Your task to perform on an android device: turn off notifications in google photos Image 0: 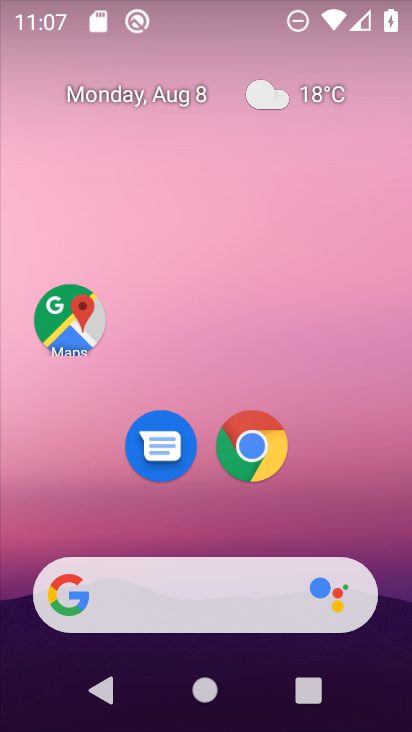
Step 0: drag from (391, 618) to (369, 180)
Your task to perform on an android device: turn off notifications in google photos Image 1: 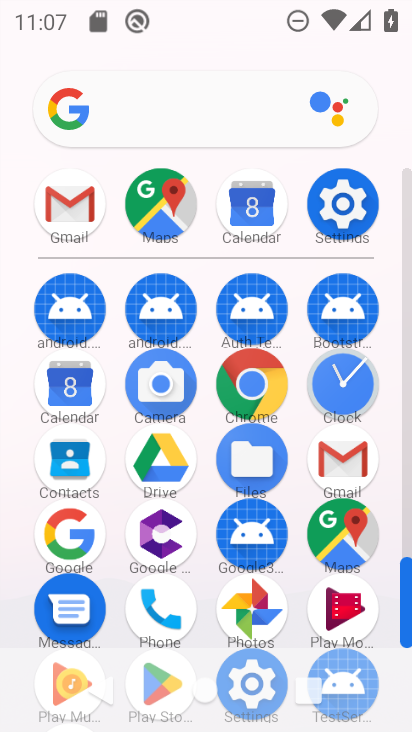
Step 1: drag from (404, 540) to (405, 497)
Your task to perform on an android device: turn off notifications in google photos Image 2: 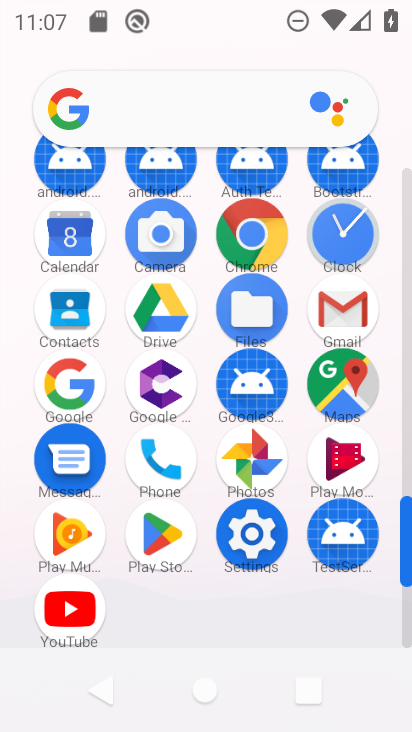
Step 2: click (250, 458)
Your task to perform on an android device: turn off notifications in google photos Image 3: 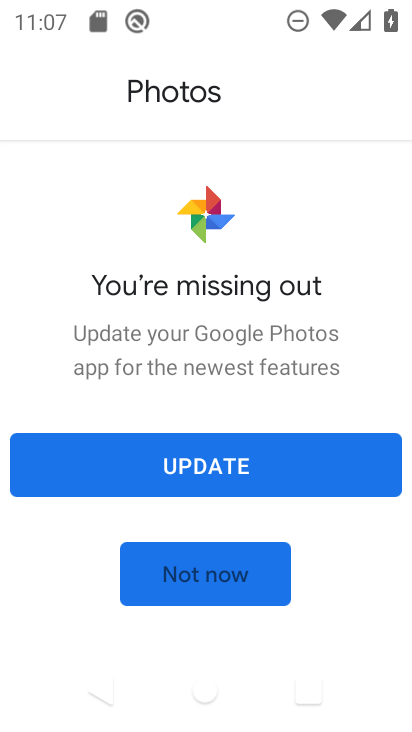
Step 3: click (214, 468)
Your task to perform on an android device: turn off notifications in google photos Image 4: 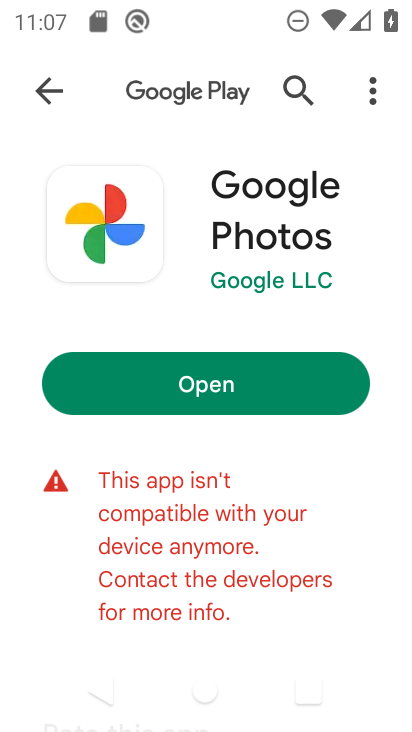
Step 4: click (203, 386)
Your task to perform on an android device: turn off notifications in google photos Image 5: 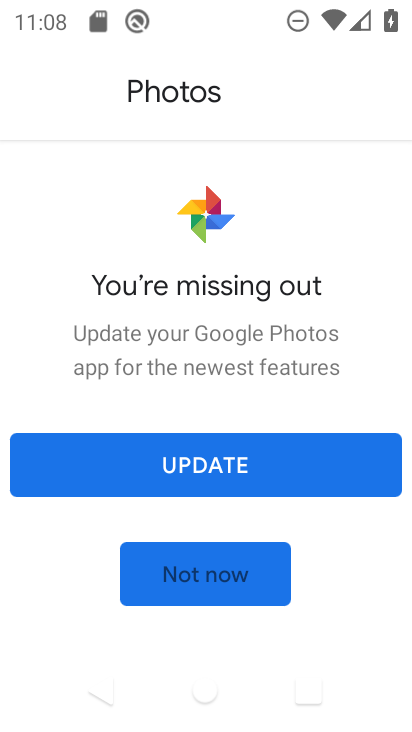
Step 5: click (199, 469)
Your task to perform on an android device: turn off notifications in google photos Image 6: 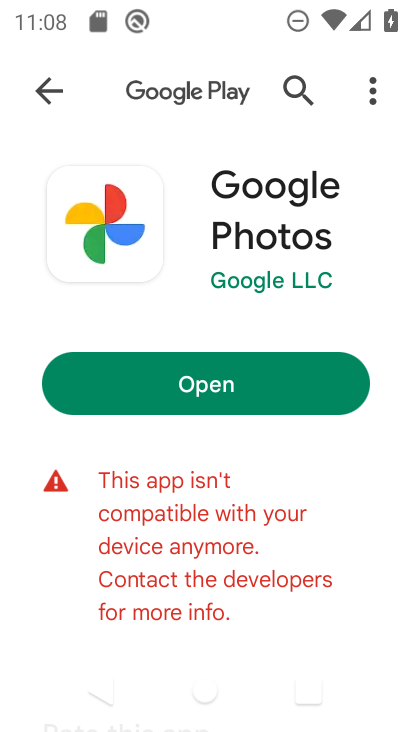
Step 6: task complete